Your task to perform on an android device: delete the emails in spam in the gmail app Image 0: 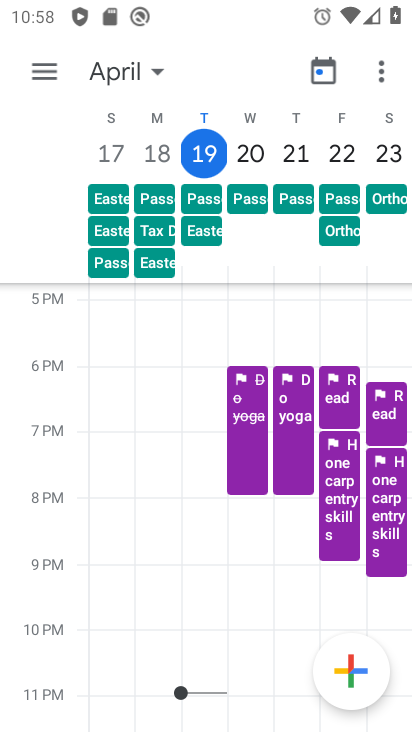
Step 0: drag from (340, 518) to (332, 168)
Your task to perform on an android device: delete the emails in spam in the gmail app Image 1: 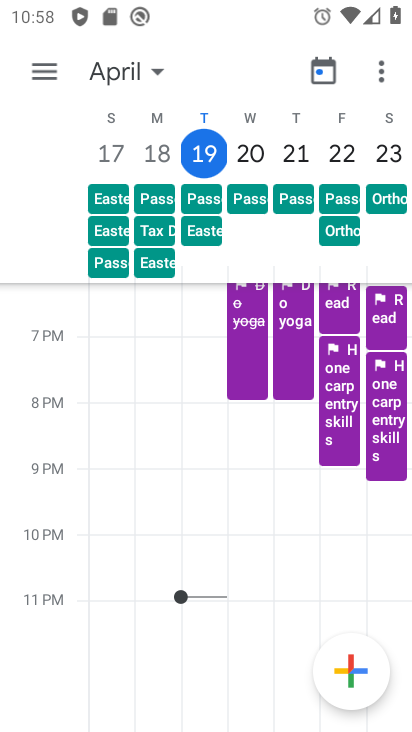
Step 1: press home button
Your task to perform on an android device: delete the emails in spam in the gmail app Image 2: 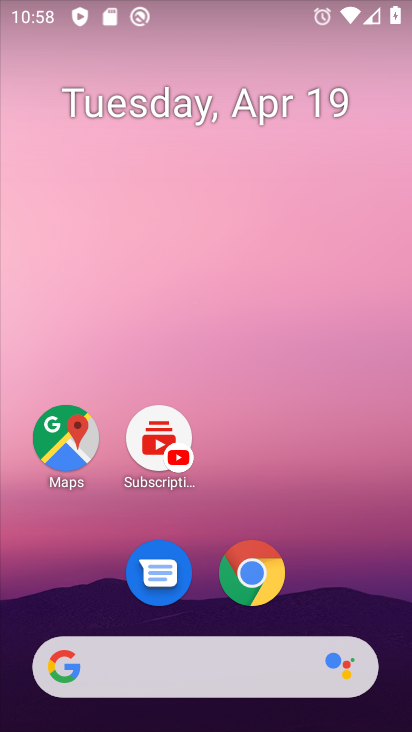
Step 2: drag from (333, 497) to (288, 154)
Your task to perform on an android device: delete the emails in spam in the gmail app Image 3: 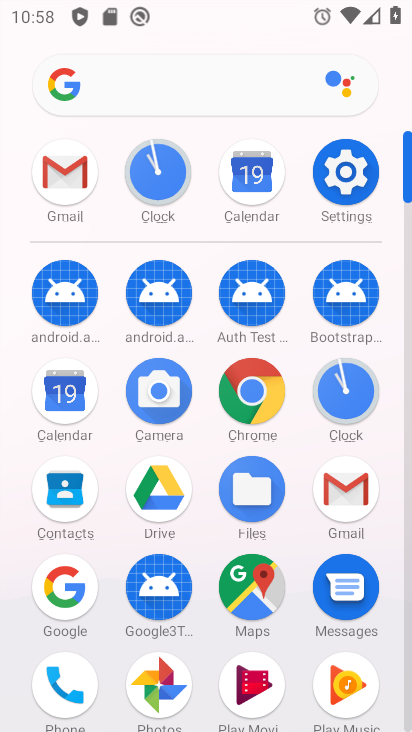
Step 3: click (339, 483)
Your task to perform on an android device: delete the emails in spam in the gmail app Image 4: 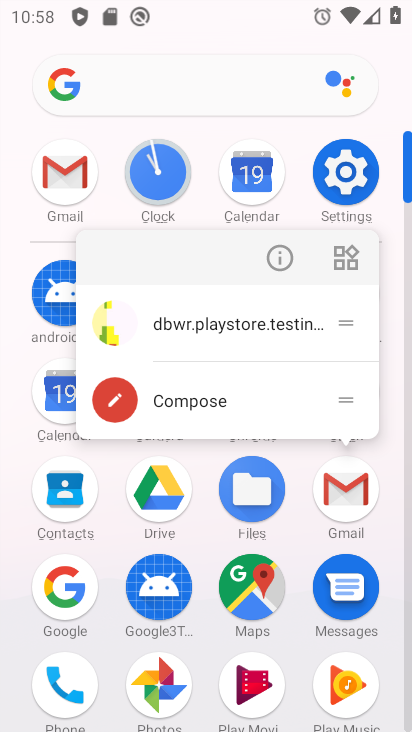
Step 4: click (349, 489)
Your task to perform on an android device: delete the emails in spam in the gmail app Image 5: 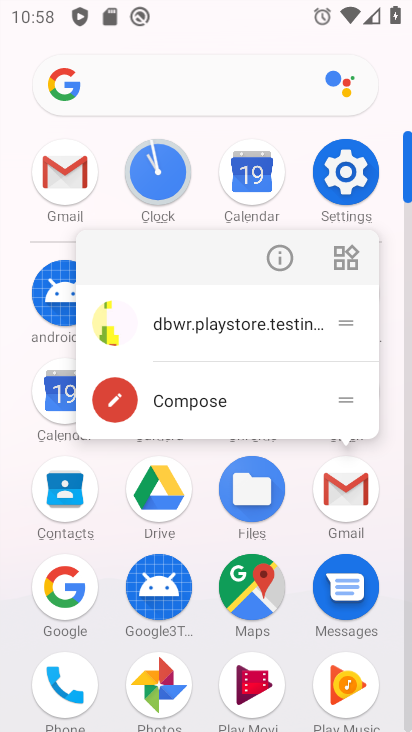
Step 5: click (349, 489)
Your task to perform on an android device: delete the emails in spam in the gmail app Image 6: 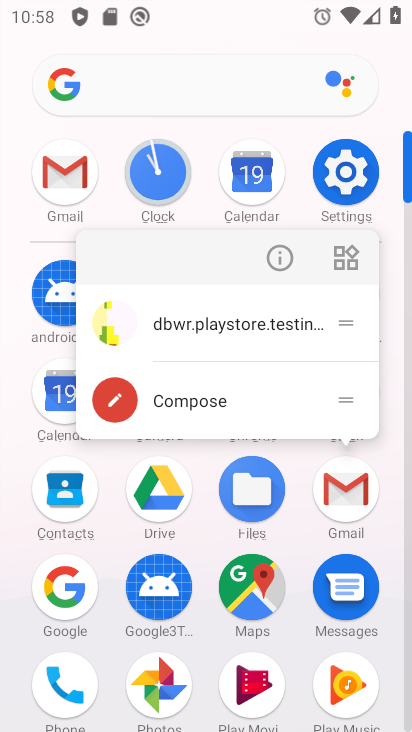
Step 6: click (349, 489)
Your task to perform on an android device: delete the emails in spam in the gmail app Image 7: 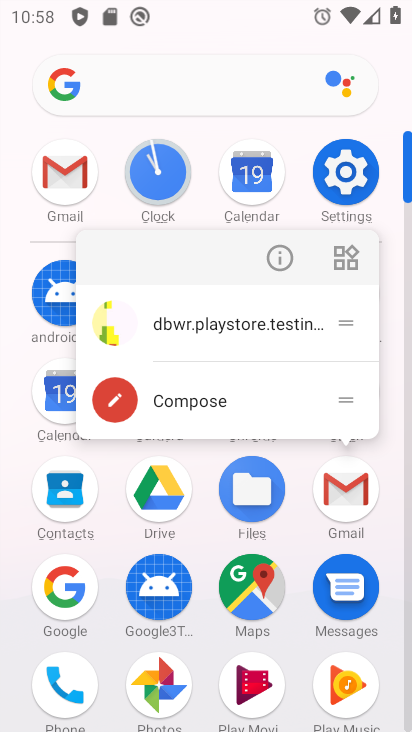
Step 7: click (360, 496)
Your task to perform on an android device: delete the emails in spam in the gmail app Image 8: 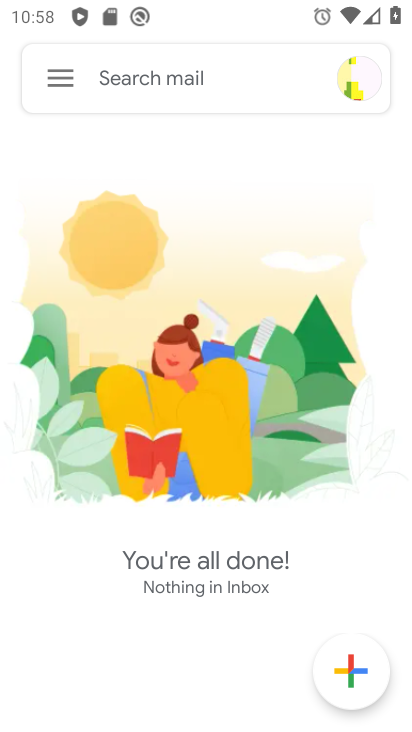
Step 8: click (57, 83)
Your task to perform on an android device: delete the emails in spam in the gmail app Image 9: 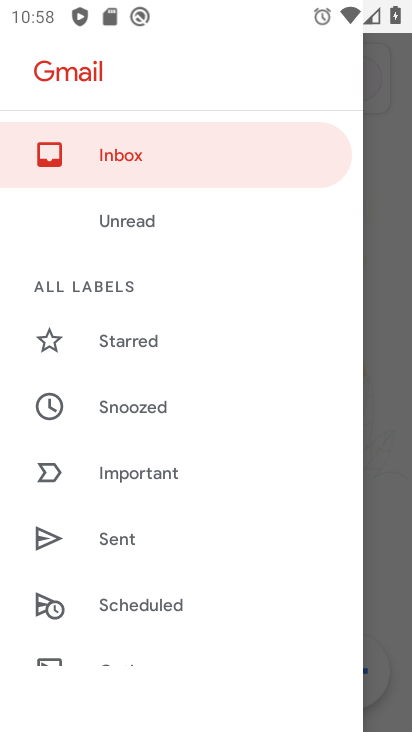
Step 9: drag from (165, 587) to (137, 286)
Your task to perform on an android device: delete the emails in spam in the gmail app Image 10: 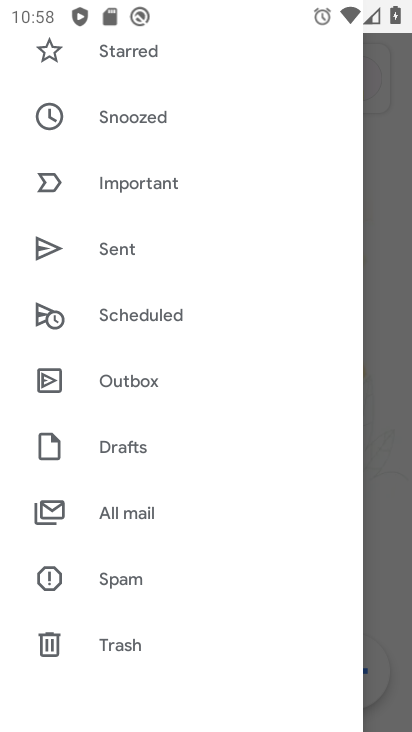
Step 10: click (110, 581)
Your task to perform on an android device: delete the emails in spam in the gmail app Image 11: 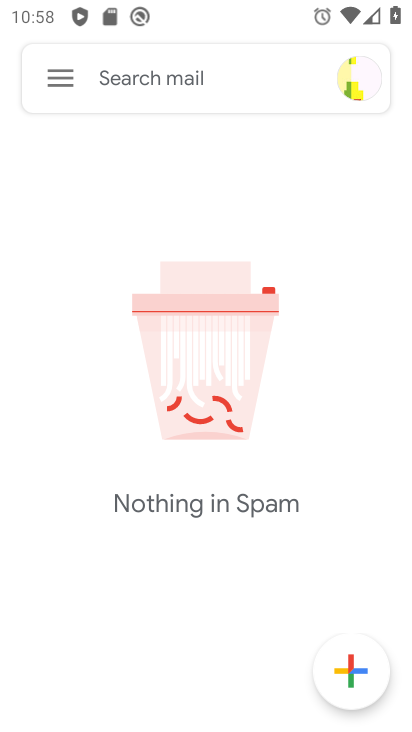
Step 11: task complete